Your task to perform on an android device: turn on sleep mode Image 0: 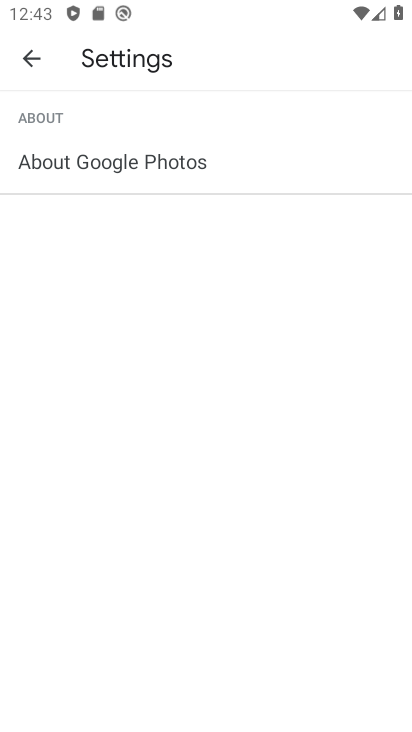
Step 0: press back button
Your task to perform on an android device: turn on sleep mode Image 1: 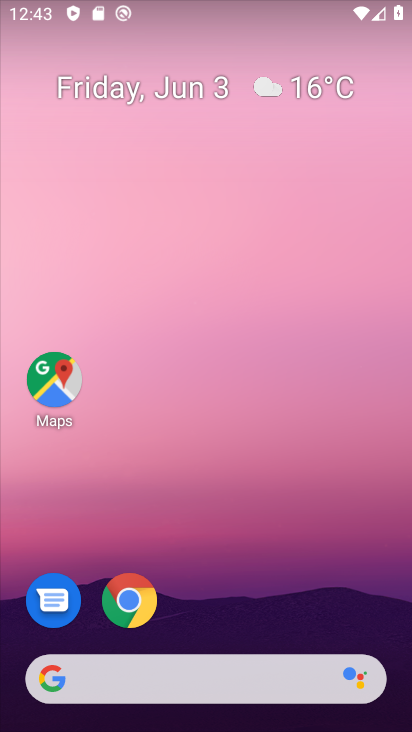
Step 1: drag from (170, 609) to (217, 255)
Your task to perform on an android device: turn on sleep mode Image 2: 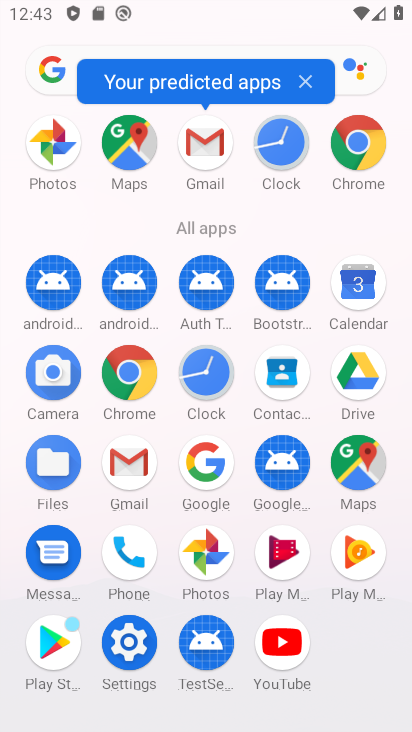
Step 2: click (135, 655)
Your task to perform on an android device: turn on sleep mode Image 3: 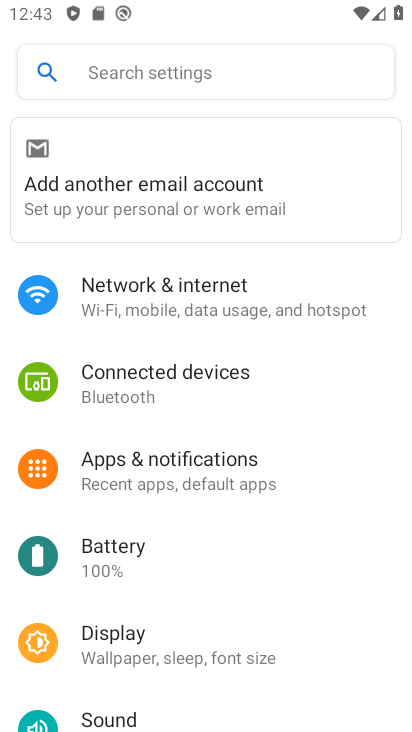
Step 3: task complete